Your task to perform on an android device: Search for the best websites on the internet Image 0: 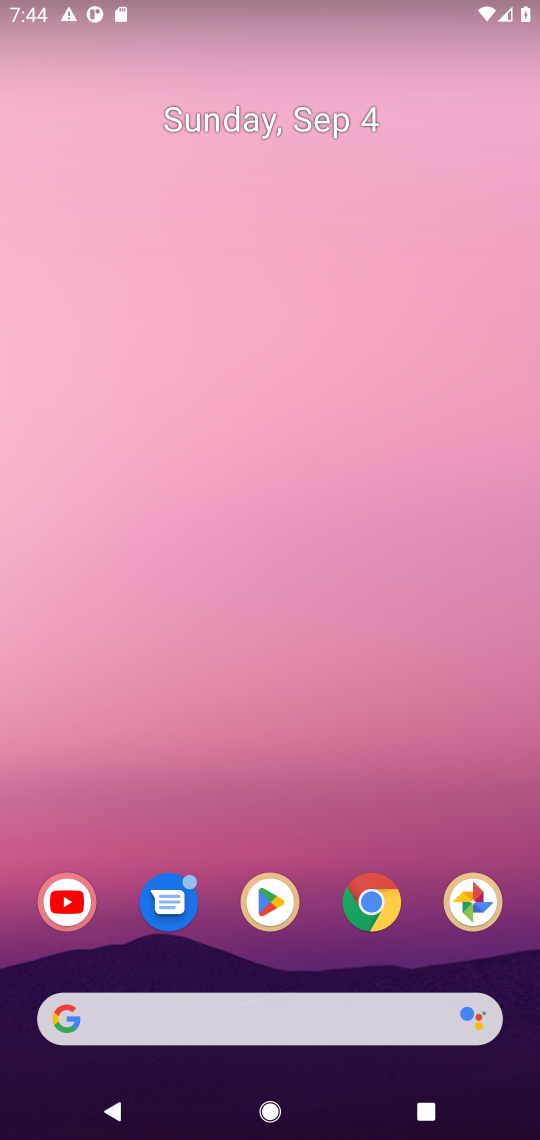
Step 0: click (161, 914)
Your task to perform on an android device: Search for the best websites on the internet Image 1: 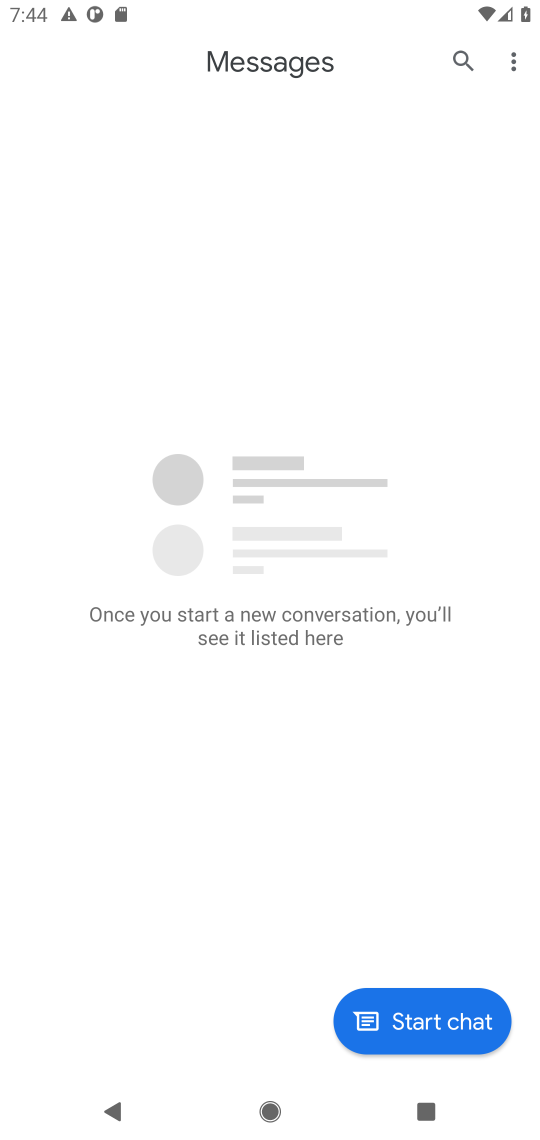
Step 1: task complete